Your task to perform on an android device: show emergency info Image 0: 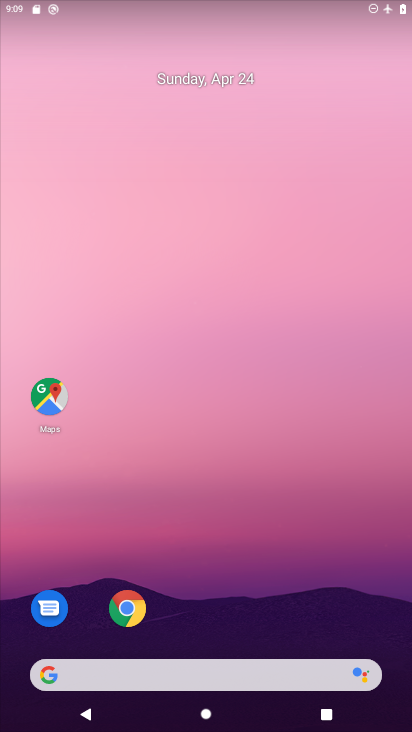
Step 0: drag from (220, 612) to (241, 99)
Your task to perform on an android device: show emergency info Image 1: 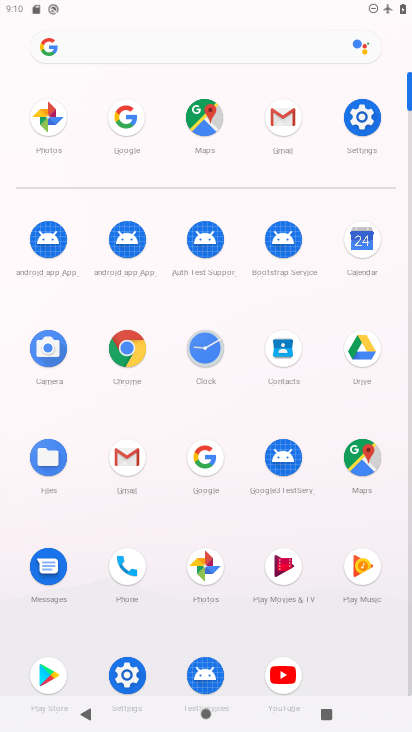
Step 1: click (345, 105)
Your task to perform on an android device: show emergency info Image 2: 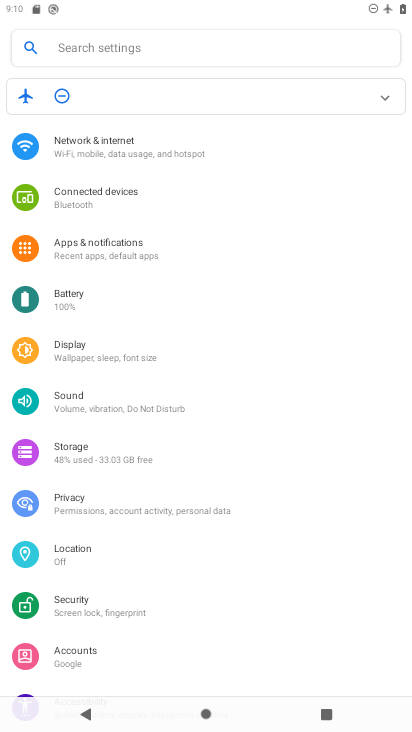
Step 2: drag from (160, 653) to (180, 222)
Your task to perform on an android device: show emergency info Image 3: 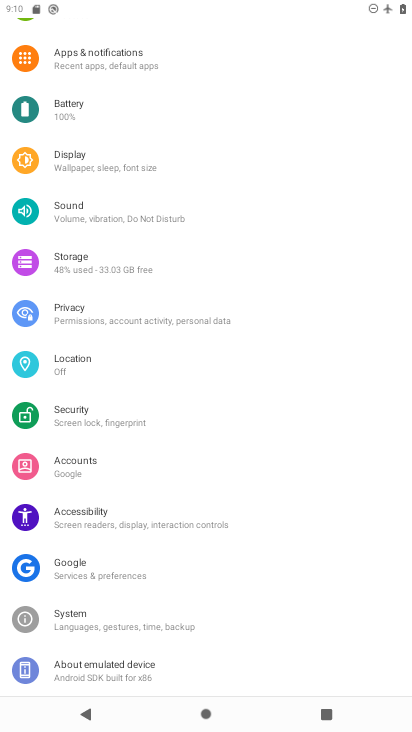
Step 3: drag from (231, 568) to (267, 309)
Your task to perform on an android device: show emergency info Image 4: 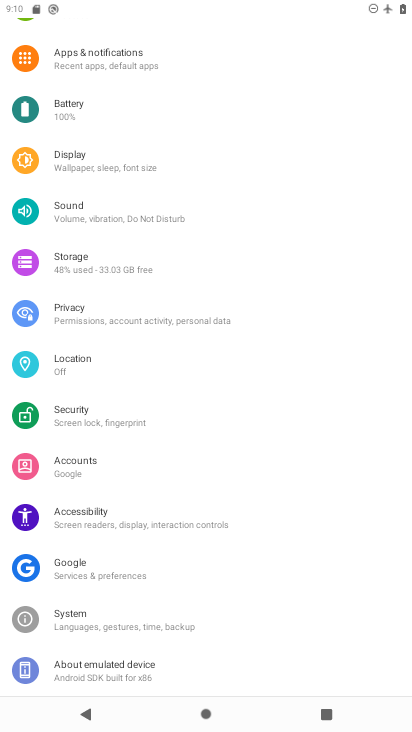
Step 4: click (93, 677)
Your task to perform on an android device: show emergency info Image 5: 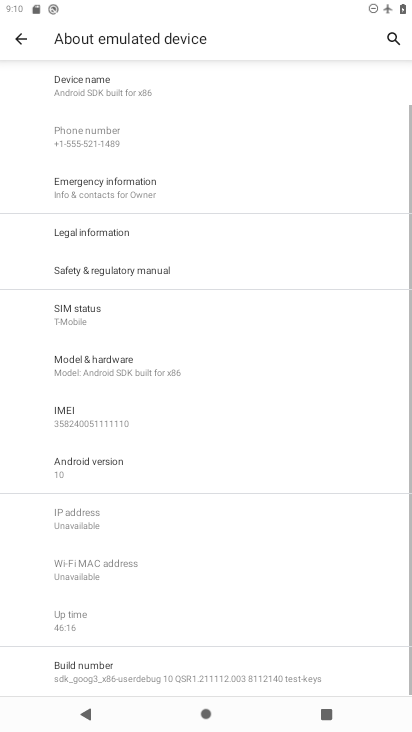
Step 5: click (222, 184)
Your task to perform on an android device: show emergency info Image 6: 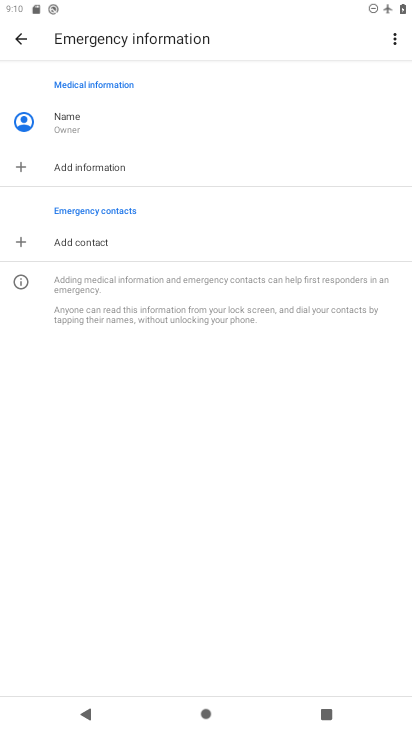
Step 6: task complete